Your task to perform on an android device: empty trash in the gmail app Image 0: 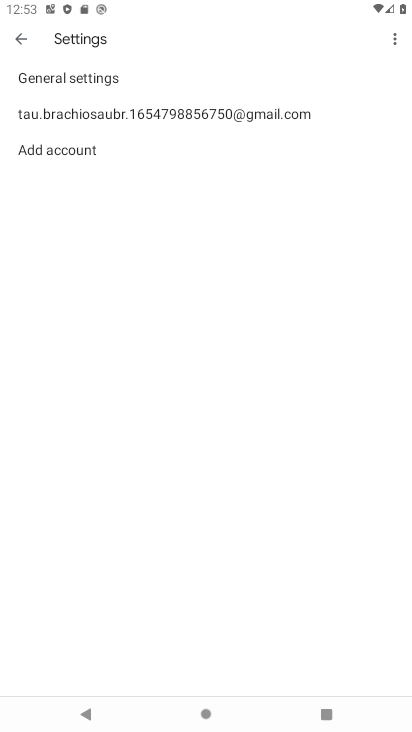
Step 0: press home button
Your task to perform on an android device: empty trash in the gmail app Image 1: 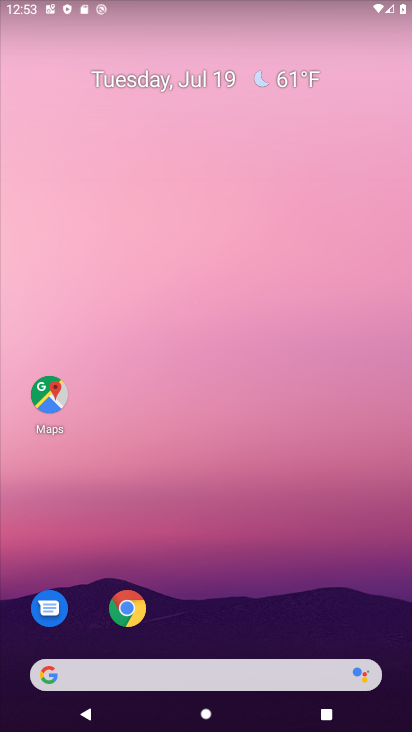
Step 1: drag from (284, 634) to (232, 49)
Your task to perform on an android device: empty trash in the gmail app Image 2: 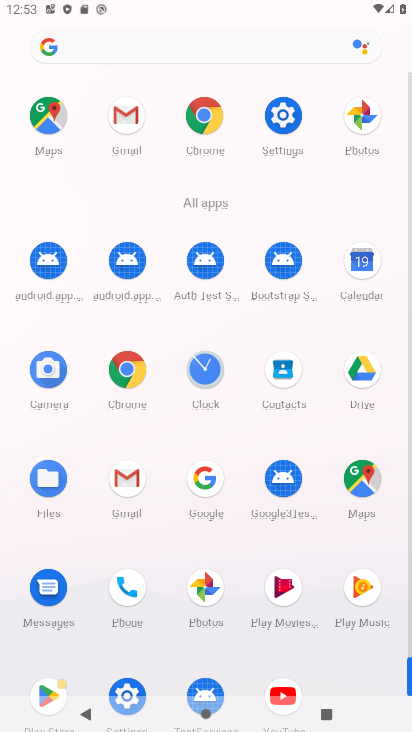
Step 2: click (129, 127)
Your task to perform on an android device: empty trash in the gmail app Image 3: 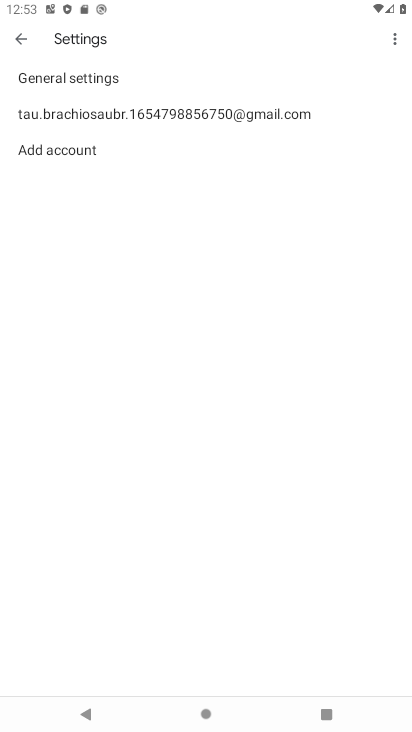
Step 3: click (27, 38)
Your task to perform on an android device: empty trash in the gmail app Image 4: 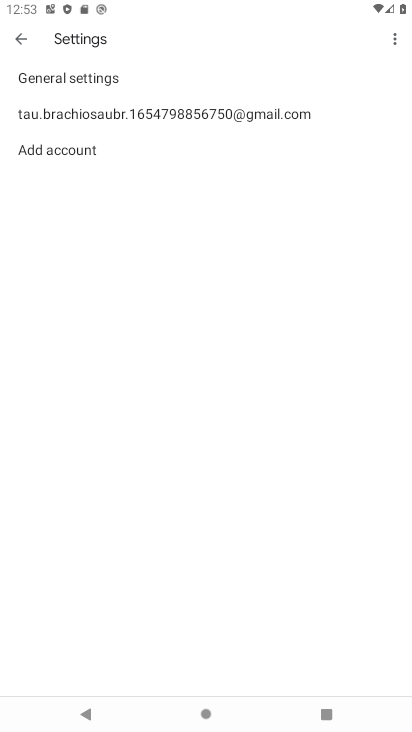
Step 4: click (27, 37)
Your task to perform on an android device: empty trash in the gmail app Image 5: 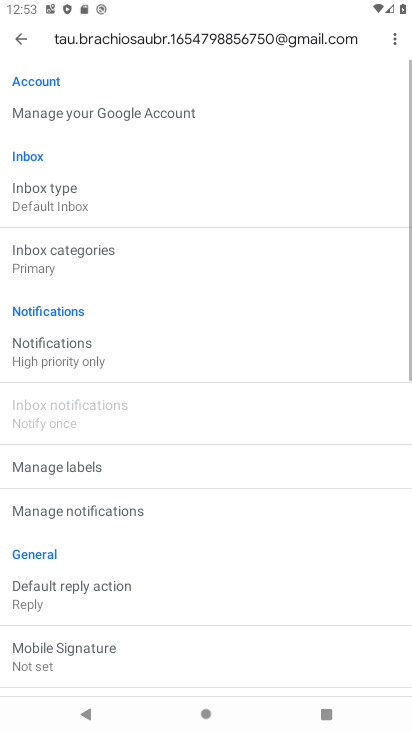
Step 5: click (27, 36)
Your task to perform on an android device: empty trash in the gmail app Image 6: 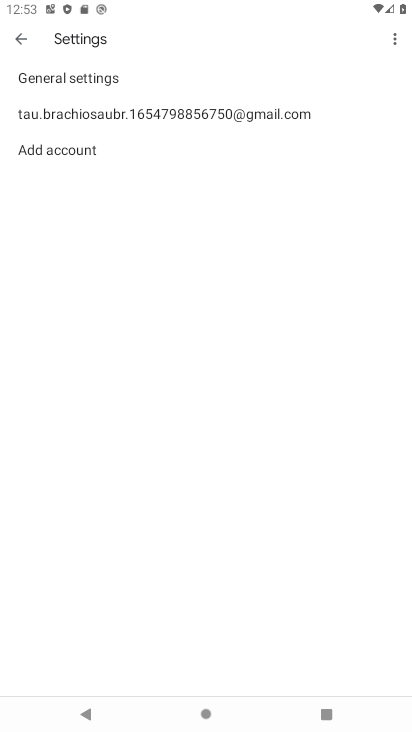
Step 6: click (27, 36)
Your task to perform on an android device: empty trash in the gmail app Image 7: 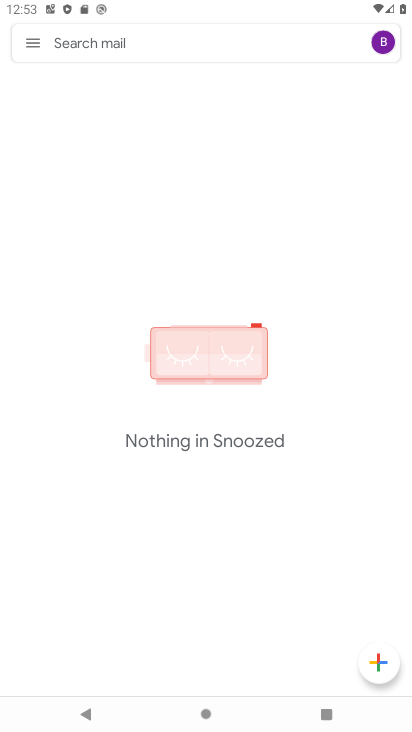
Step 7: click (27, 36)
Your task to perform on an android device: empty trash in the gmail app Image 8: 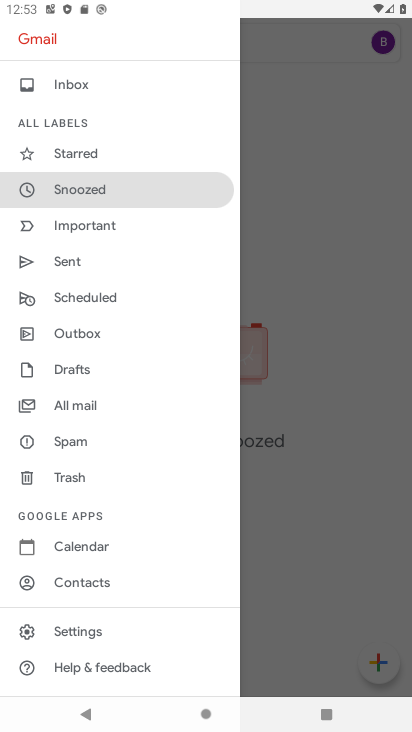
Step 8: click (80, 481)
Your task to perform on an android device: empty trash in the gmail app Image 9: 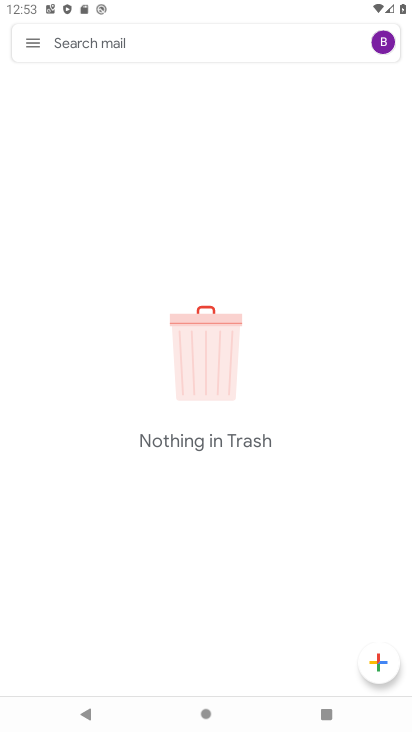
Step 9: task complete